Your task to perform on an android device: Show me popular videos on Youtube Image 0: 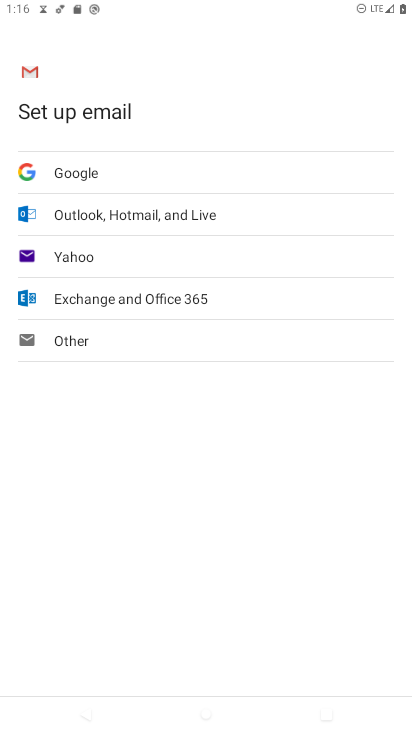
Step 0: press home button
Your task to perform on an android device: Show me popular videos on Youtube Image 1: 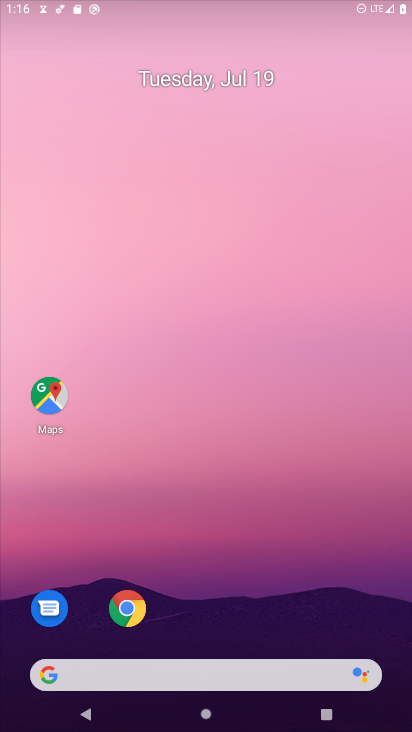
Step 1: drag from (206, 687) to (259, 1)
Your task to perform on an android device: Show me popular videos on Youtube Image 2: 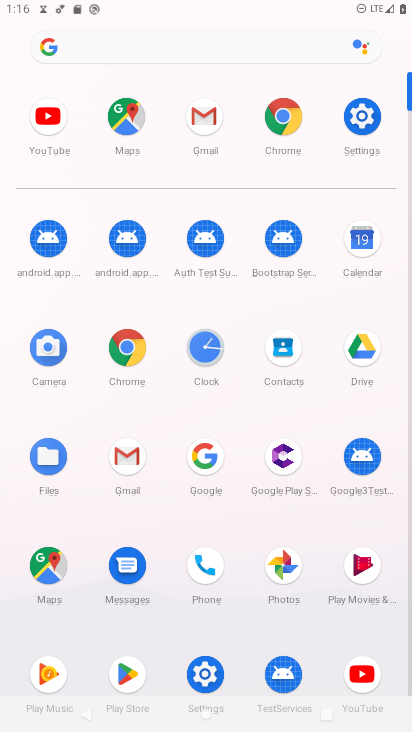
Step 2: click (359, 677)
Your task to perform on an android device: Show me popular videos on Youtube Image 3: 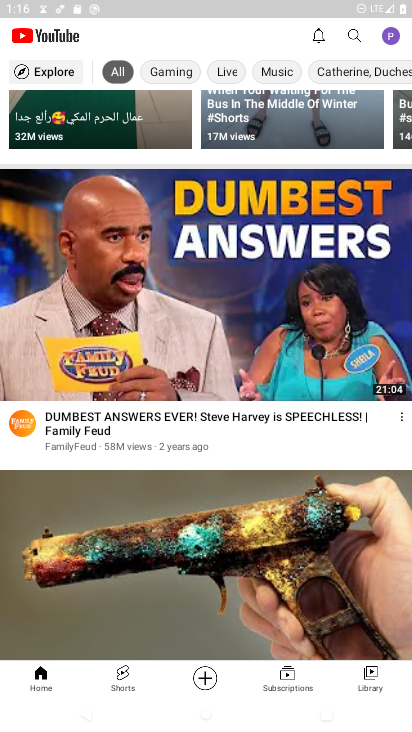
Step 3: task complete